Your task to perform on an android device: allow notifications from all sites in the chrome app Image 0: 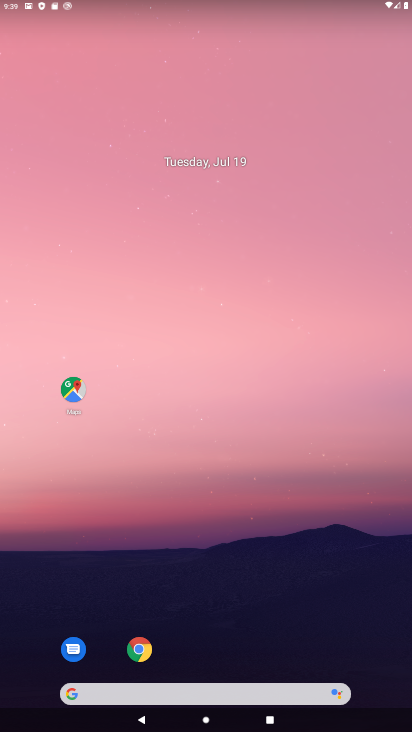
Step 0: drag from (365, 687) to (265, 53)
Your task to perform on an android device: allow notifications from all sites in the chrome app Image 1: 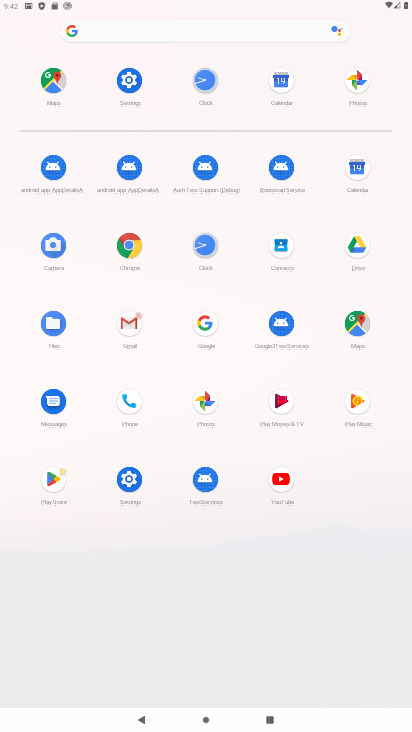
Step 1: click (126, 249)
Your task to perform on an android device: allow notifications from all sites in the chrome app Image 2: 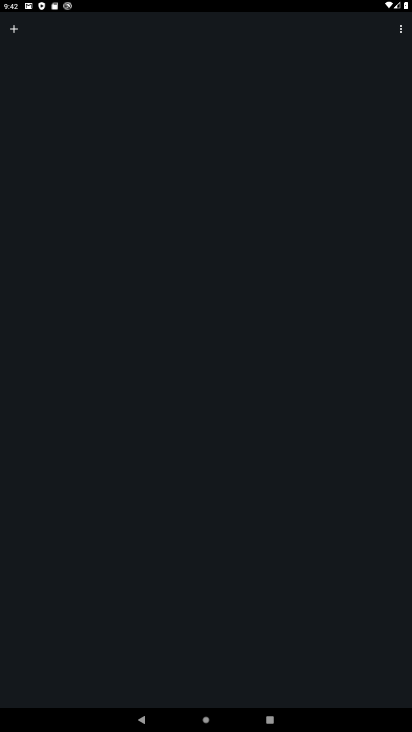
Step 2: click (396, 29)
Your task to perform on an android device: allow notifications from all sites in the chrome app Image 3: 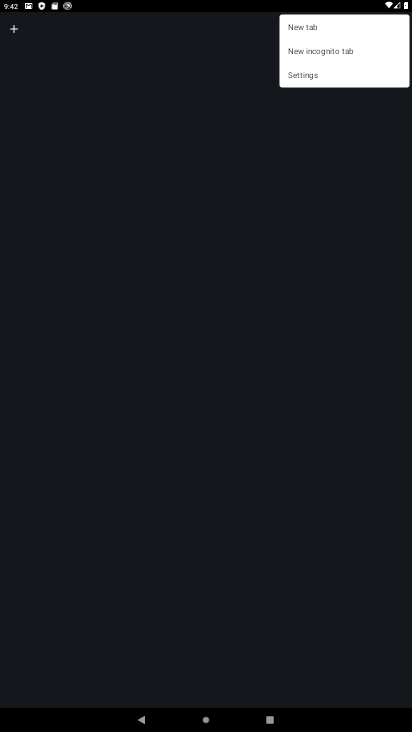
Step 3: click (289, 81)
Your task to perform on an android device: allow notifications from all sites in the chrome app Image 4: 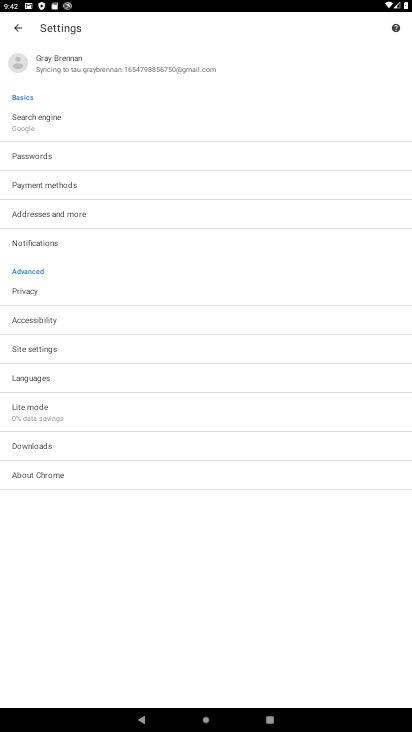
Step 4: click (61, 240)
Your task to perform on an android device: allow notifications from all sites in the chrome app Image 5: 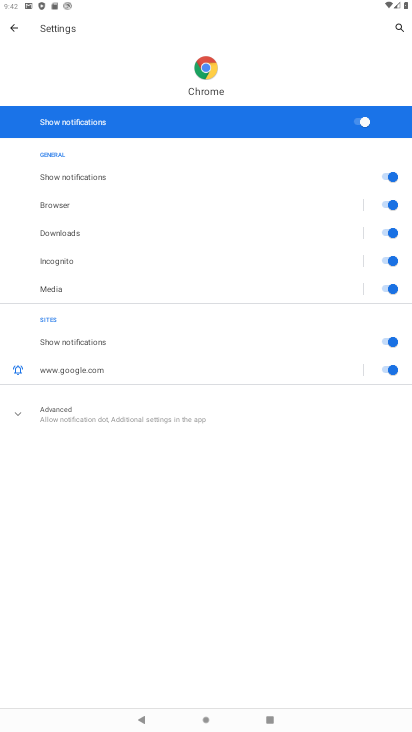
Step 5: task complete